Your task to perform on an android device: turn off smart reply in the gmail app Image 0: 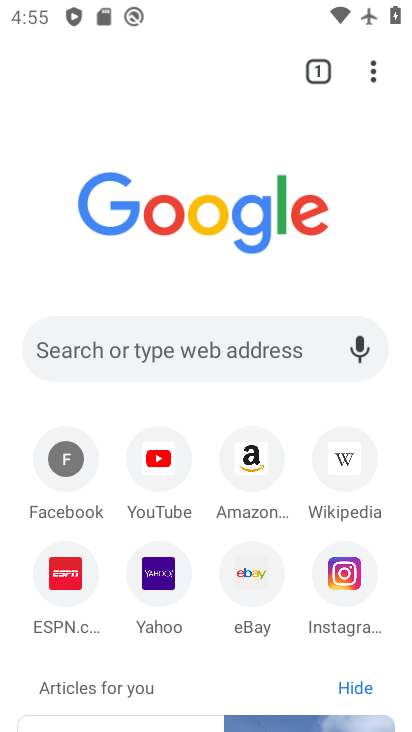
Step 0: press back button
Your task to perform on an android device: turn off smart reply in the gmail app Image 1: 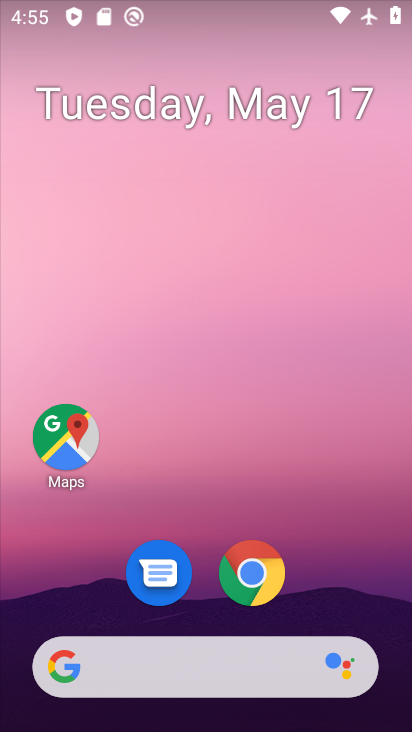
Step 1: drag from (350, 579) to (179, 80)
Your task to perform on an android device: turn off smart reply in the gmail app Image 2: 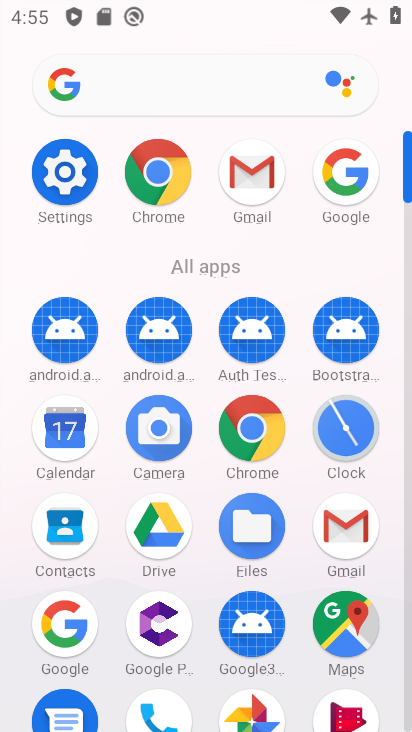
Step 2: click (343, 516)
Your task to perform on an android device: turn off smart reply in the gmail app Image 3: 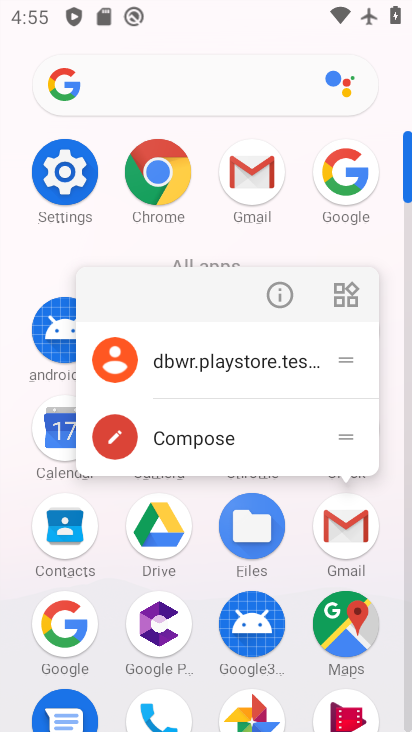
Step 3: click (343, 516)
Your task to perform on an android device: turn off smart reply in the gmail app Image 4: 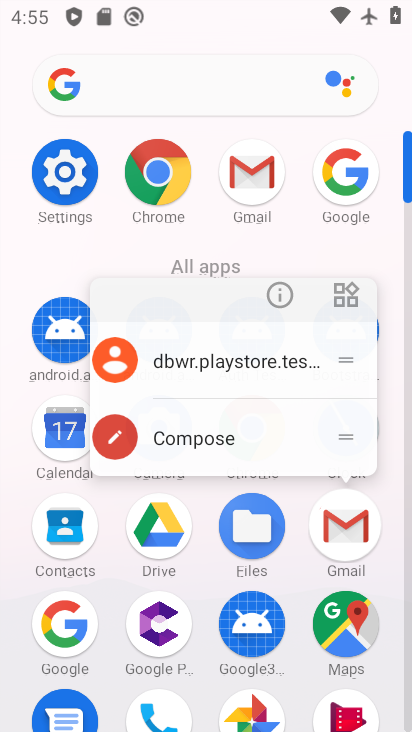
Step 4: click (343, 516)
Your task to perform on an android device: turn off smart reply in the gmail app Image 5: 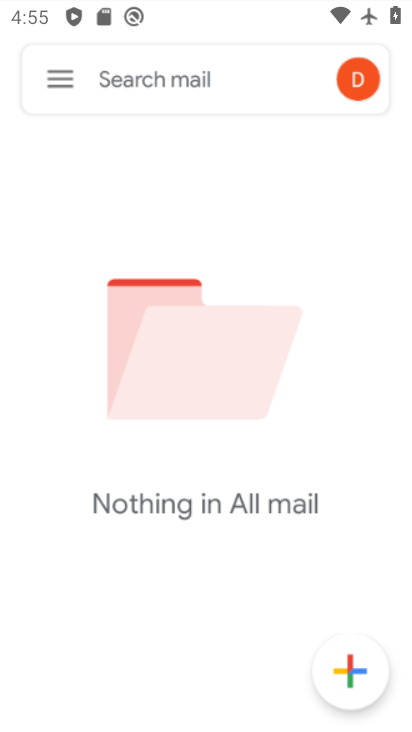
Step 5: click (344, 517)
Your task to perform on an android device: turn off smart reply in the gmail app Image 6: 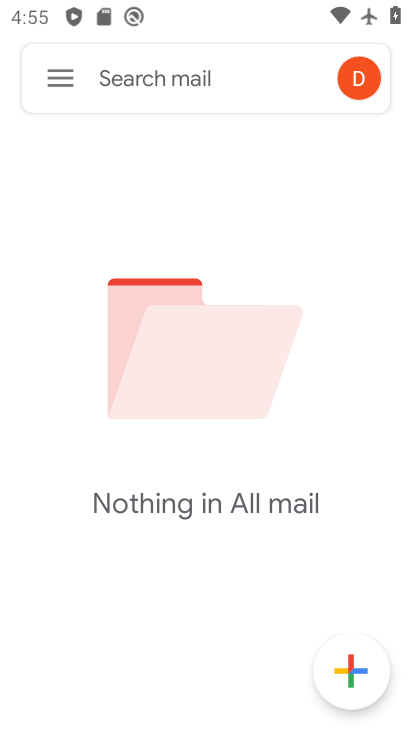
Step 6: click (49, 72)
Your task to perform on an android device: turn off smart reply in the gmail app Image 7: 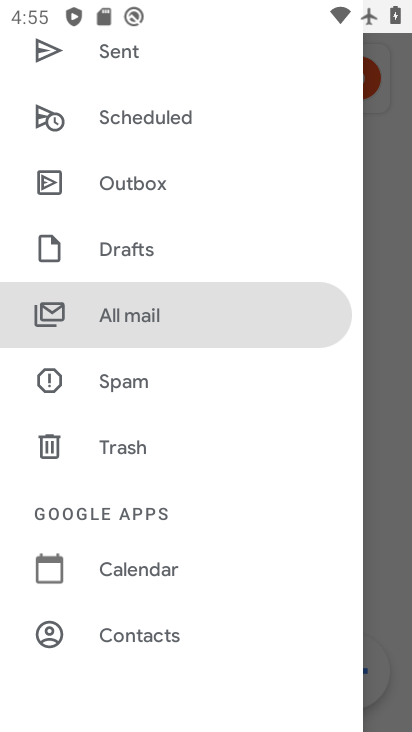
Step 7: drag from (166, 613) to (119, 87)
Your task to perform on an android device: turn off smart reply in the gmail app Image 8: 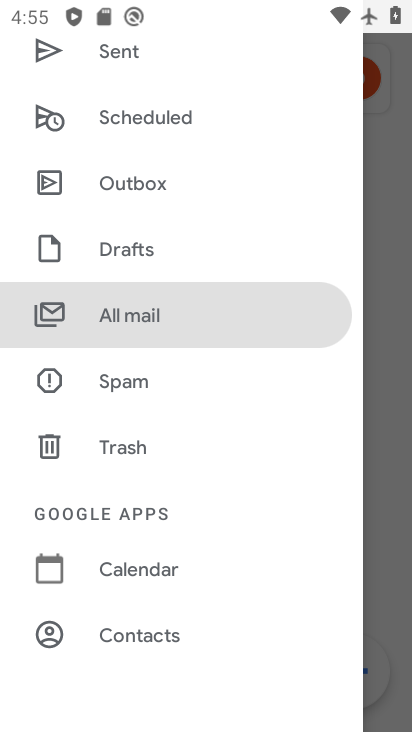
Step 8: click (132, 188)
Your task to perform on an android device: turn off smart reply in the gmail app Image 9: 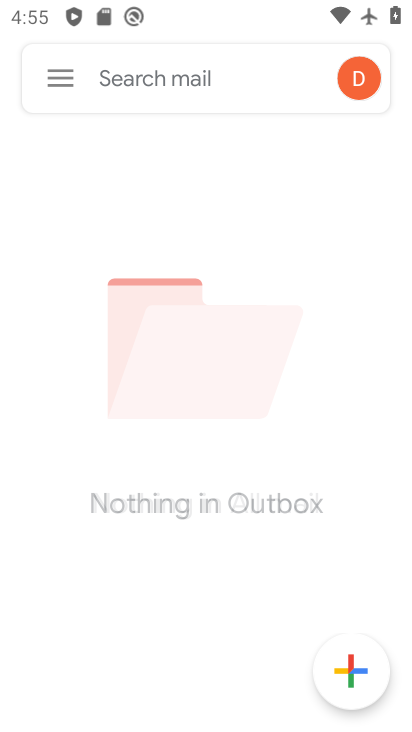
Step 9: drag from (127, 400) to (131, 107)
Your task to perform on an android device: turn off smart reply in the gmail app Image 10: 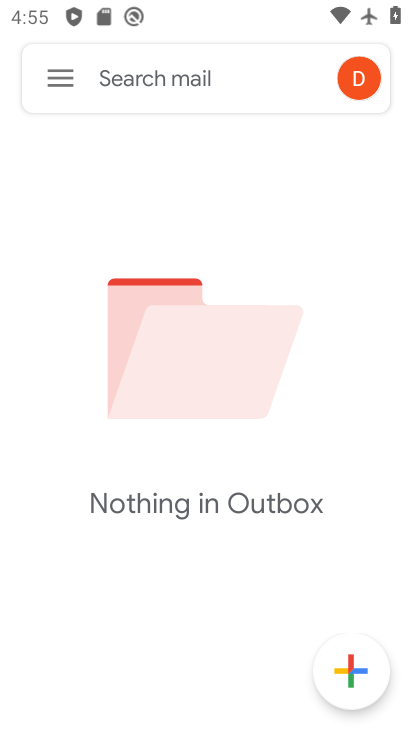
Step 10: click (54, 67)
Your task to perform on an android device: turn off smart reply in the gmail app Image 11: 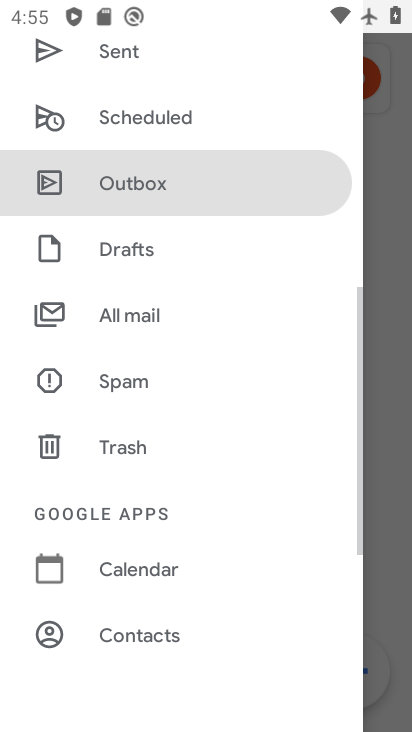
Step 11: drag from (148, 566) to (148, 228)
Your task to perform on an android device: turn off smart reply in the gmail app Image 12: 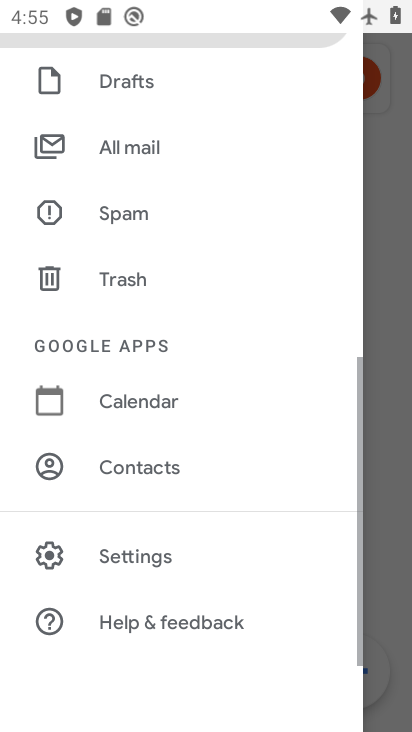
Step 12: click (134, 556)
Your task to perform on an android device: turn off smart reply in the gmail app Image 13: 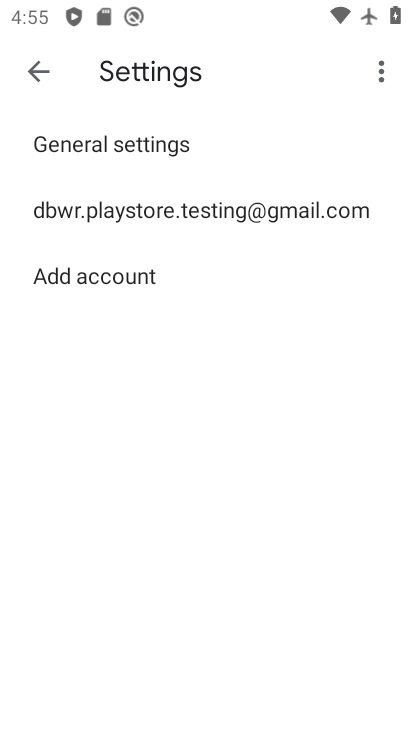
Step 13: click (142, 198)
Your task to perform on an android device: turn off smart reply in the gmail app Image 14: 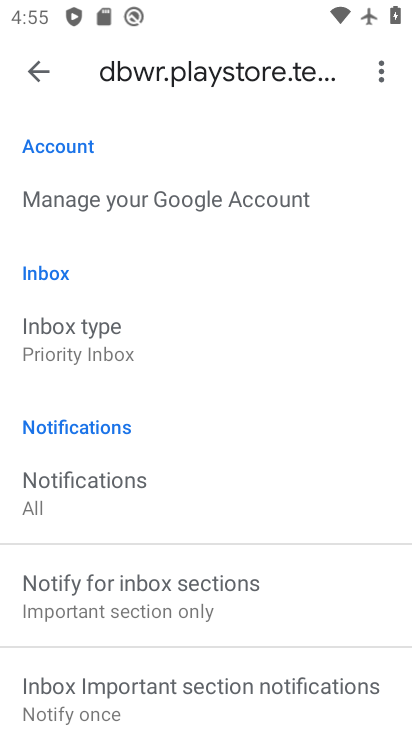
Step 14: drag from (132, 547) to (67, 232)
Your task to perform on an android device: turn off smart reply in the gmail app Image 15: 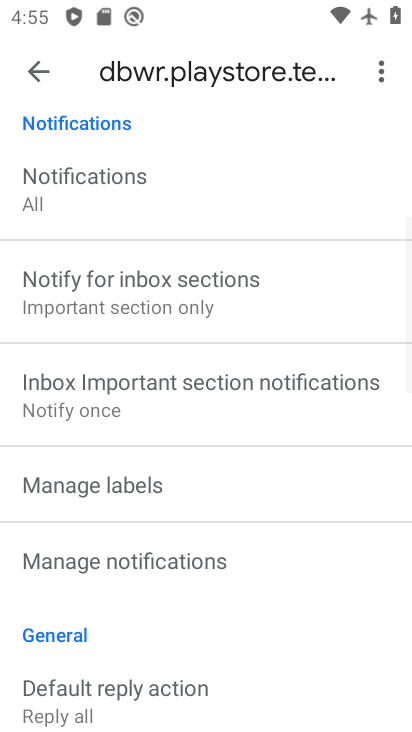
Step 15: drag from (95, 443) to (87, 94)
Your task to perform on an android device: turn off smart reply in the gmail app Image 16: 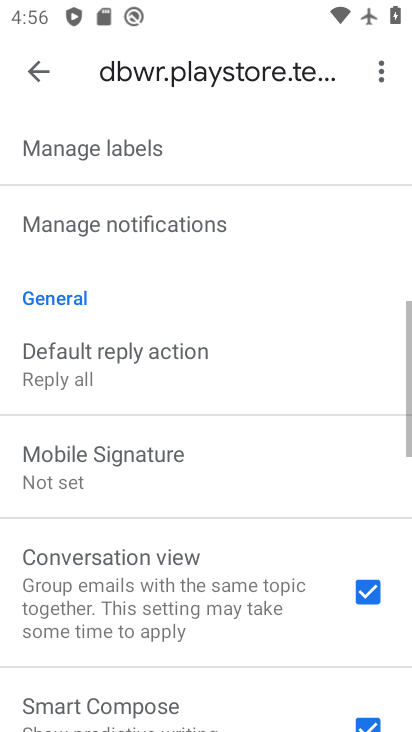
Step 16: drag from (125, 475) to (130, 184)
Your task to perform on an android device: turn off smart reply in the gmail app Image 17: 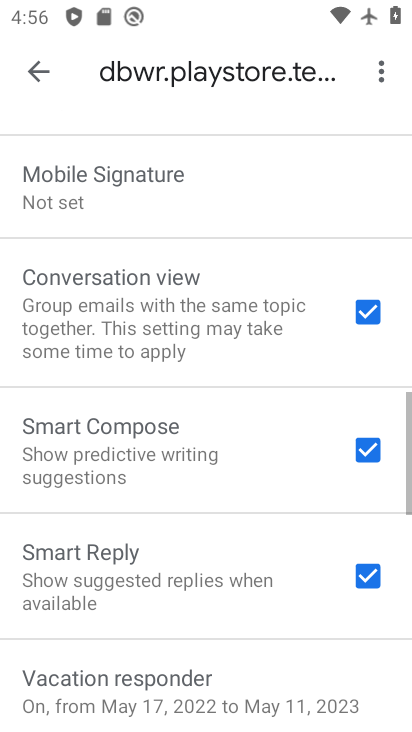
Step 17: drag from (141, 468) to (128, 92)
Your task to perform on an android device: turn off smart reply in the gmail app Image 18: 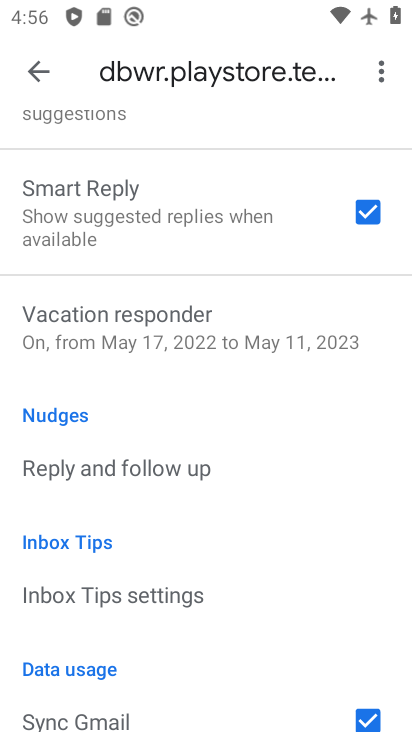
Step 18: click (362, 208)
Your task to perform on an android device: turn off smart reply in the gmail app Image 19: 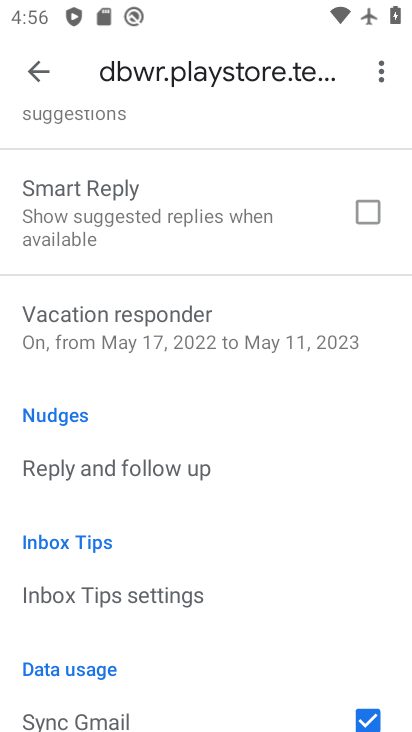
Step 19: task complete